Your task to perform on an android device: Go to wifi settings Image 0: 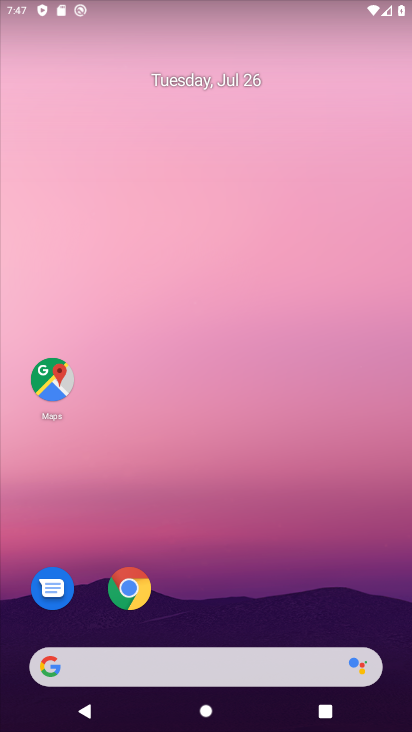
Step 0: drag from (181, 648) to (172, 363)
Your task to perform on an android device: Go to wifi settings Image 1: 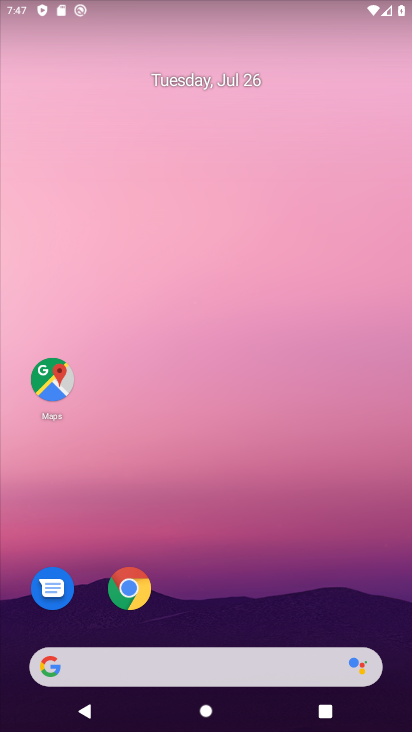
Step 1: drag from (171, 652) to (128, 225)
Your task to perform on an android device: Go to wifi settings Image 2: 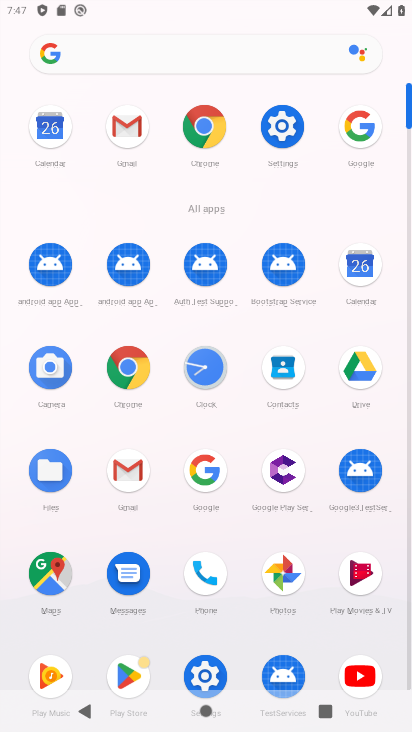
Step 2: click (276, 116)
Your task to perform on an android device: Go to wifi settings Image 3: 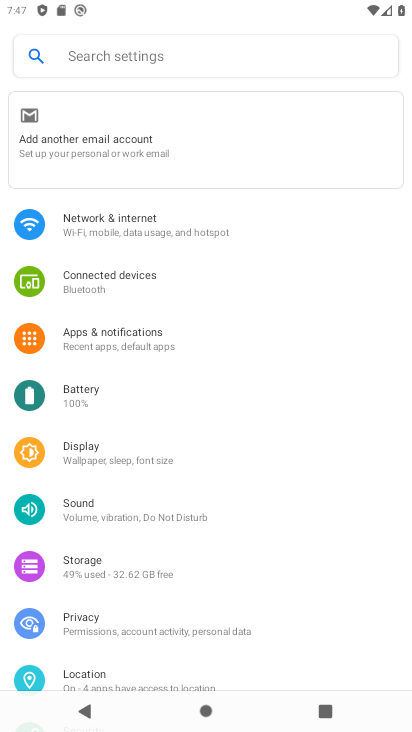
Step 3: click (95, 209)
Your task to perform on an android device: Go to wifi settings Image 4: 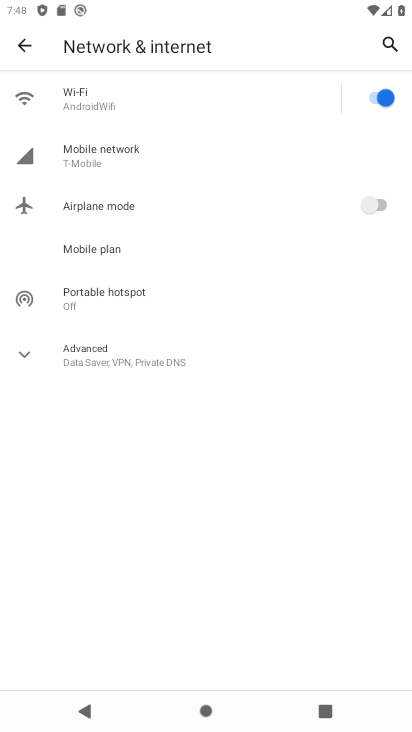
Step 4: click (82, 103)
Your task to perform on an android device: Go to wifi settings Image 5: 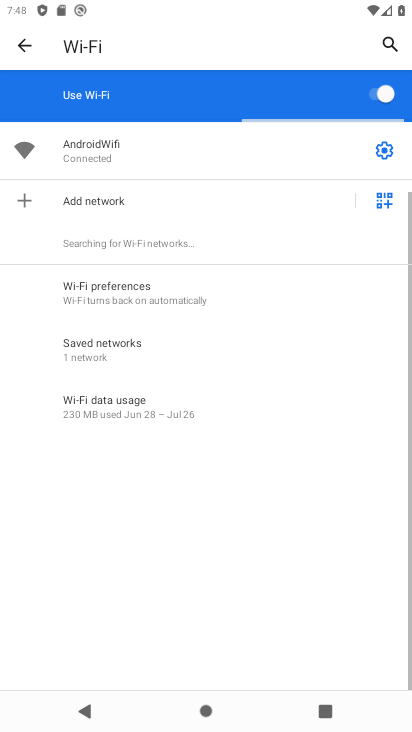
Step 5: click (380, 153)
Your task to perform on an android device: Go to wifi settings Image 6: 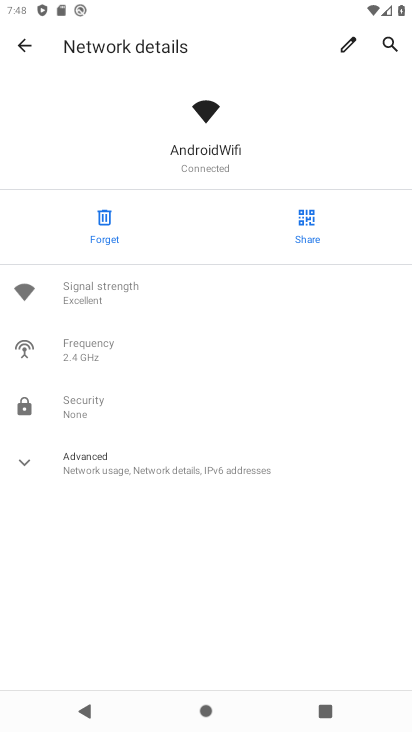
Step 6: click (172, 457)
Your task to perform on an android device: Go to wifi settings Image 7: 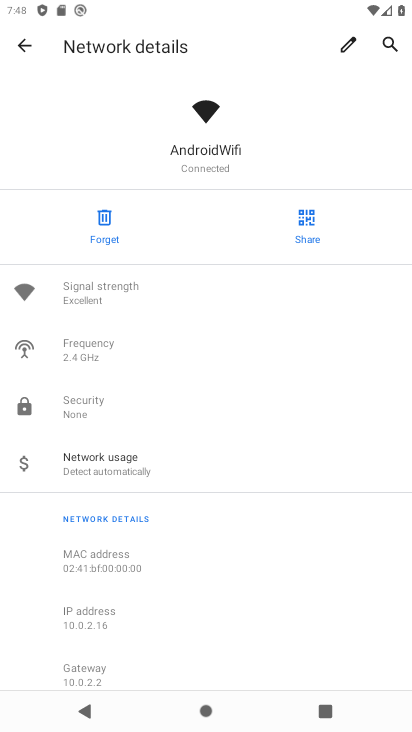
Step 7: task complete